Your task to perform on an android device: turn on showing notifications on the lock screen Image 0: 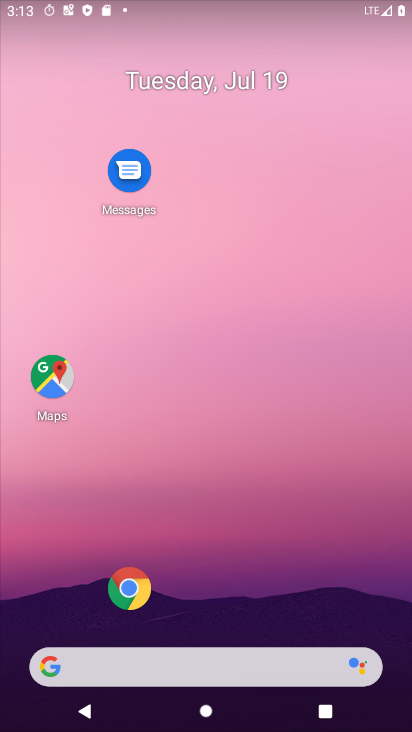
Step 0: drag from (54, 612) to (228, 135)
Your task to perform on an android device: turn on showing notifications on the lock screen Image 1: 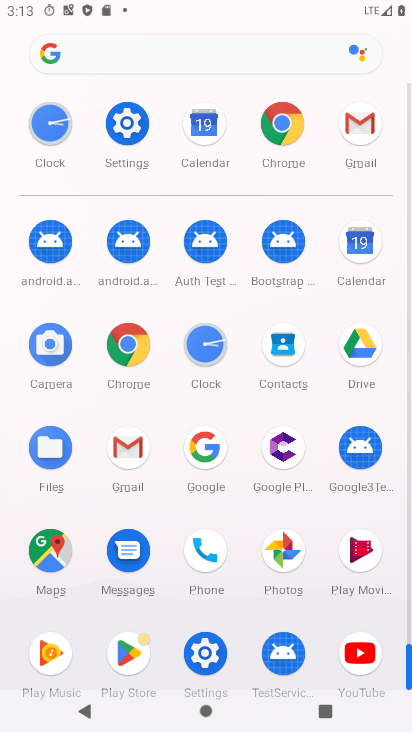
Step 1: click (206, 668)
Your task to perform on an android device: turn on showing notifications on the lock screen Image 2: 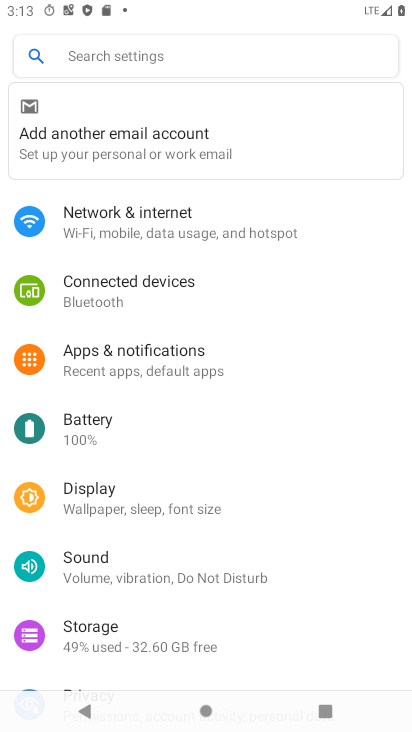
Step 2: click (156, 362)
Your task to perform on an android device: turn on showing notifications on the lock screen Image 3: 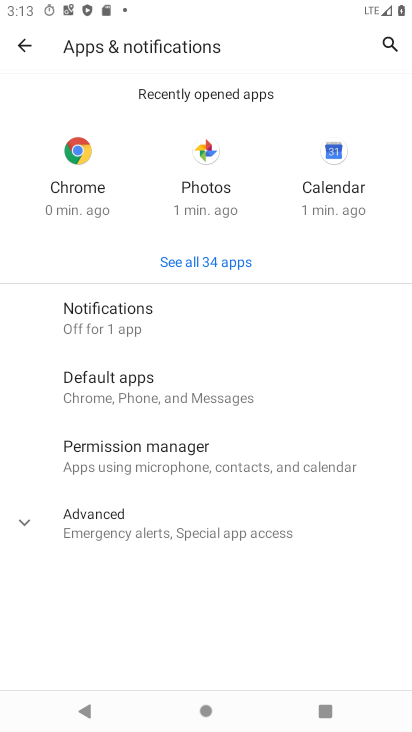
Step 3: click (141, 327)
Your task to perform on an android device: turn on showing notifications on the lock screen Image 4: 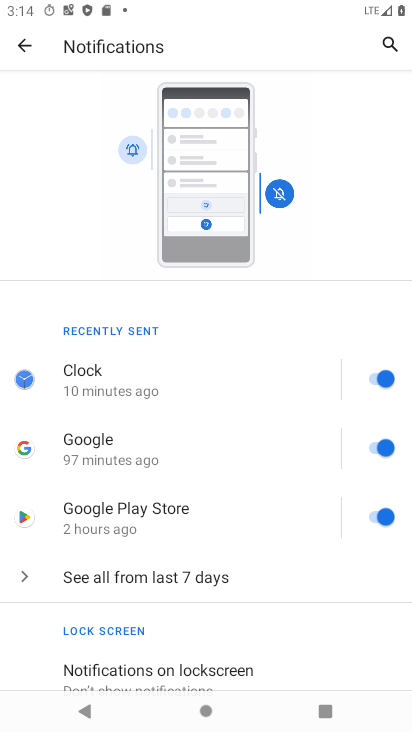
Step 4: drag from (267, 624) to (269, 290)
Your task to perform on an android device: turn on showing notifications on the lock screen Image 5: 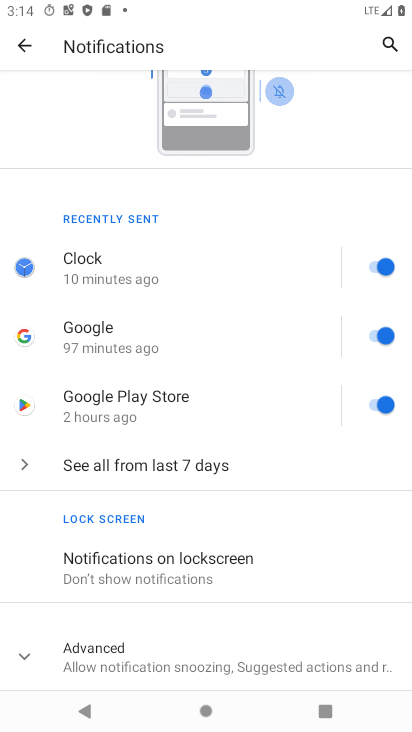
Step 5: click (234, 559)
Your task to perform on an android device: turn on showing notifications on the lock screen Image 6: 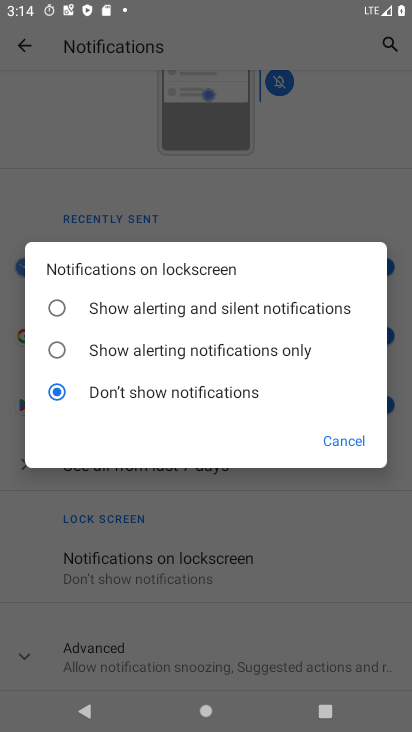
Step 6: click (159, 328)
Your task to perform on an android device: turn on showing notifications on the lock screen Image 7: 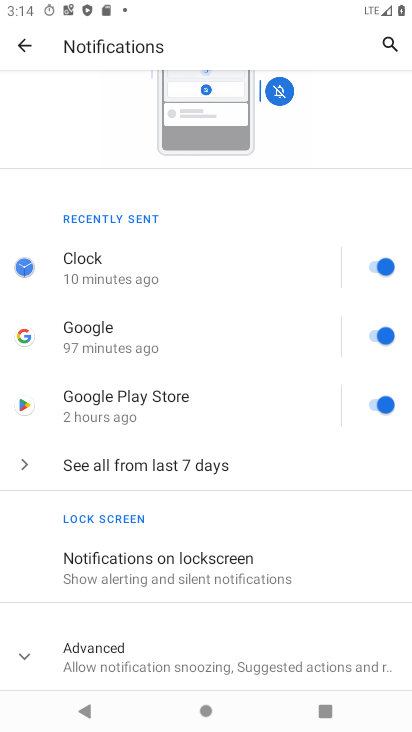
Step 7: task complete